Your task to perform on an android device: Open Amazon Image 0: 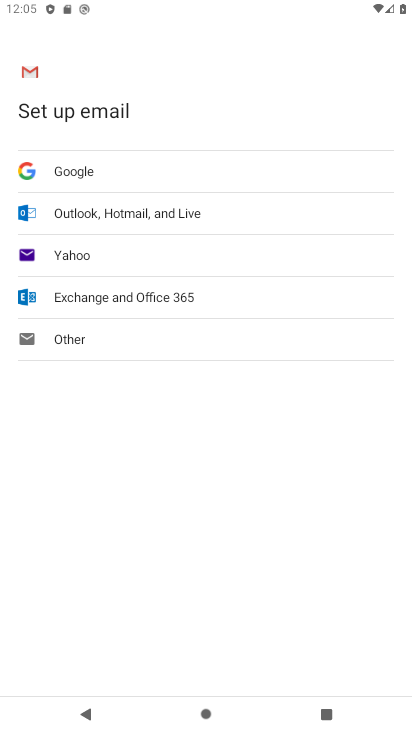
Step 0: press home button
Your task to perform on an android device: Open Amazon Image 1: 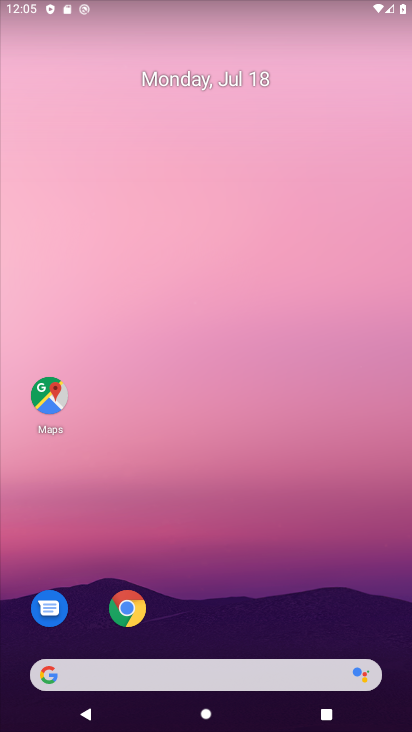
Step 1: click (131, 619)
Your task to perform on an android device: Open Amazon Image 2: 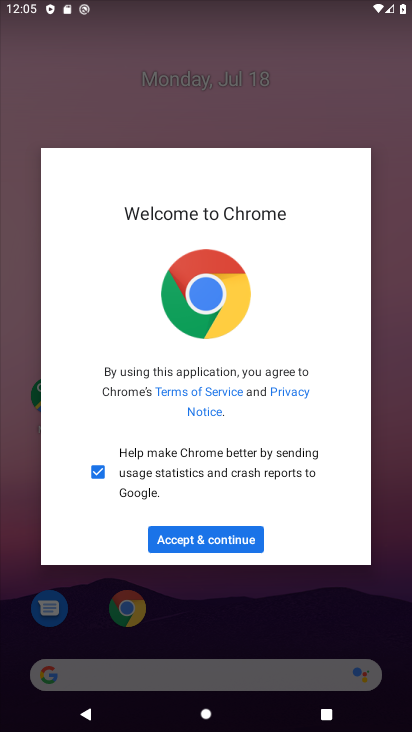
Step 2: click (187, 539)
Your task to perform on an android device: Open Amazon Image 3: 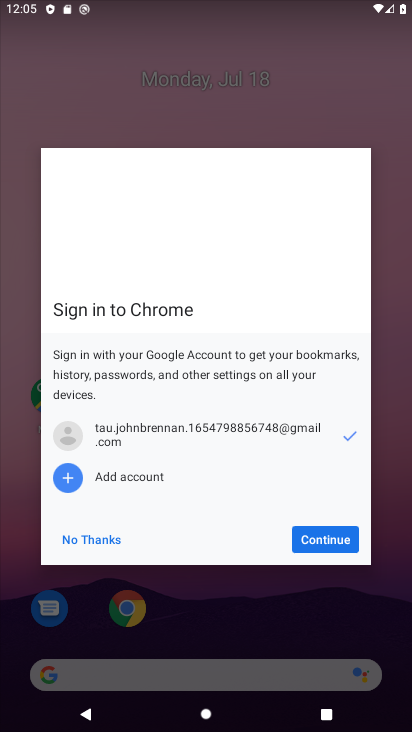
Step 3: click (311, 536)
Your task to perform on an android device: Open Amazon Image 4: 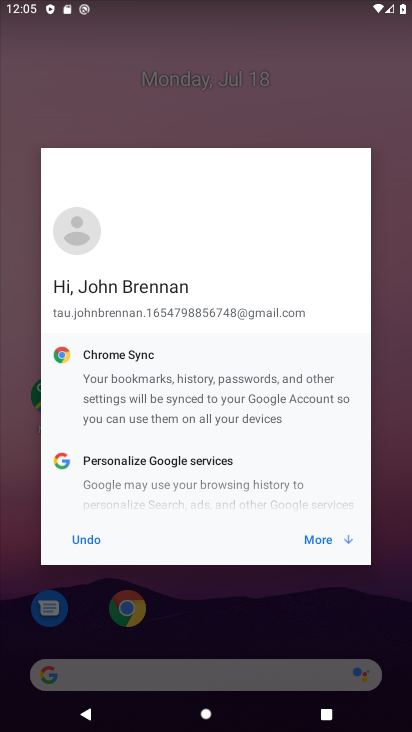
Step 4: click (311, 536)
Your task to perform on an android device: Open Amazon Image 5: 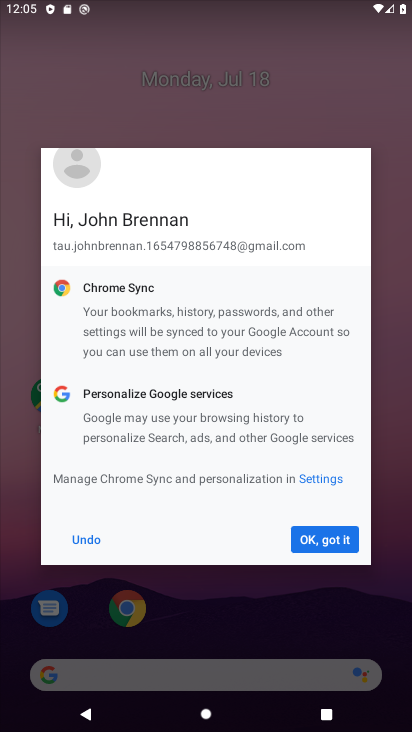
Step 5: click (311, 536)
Your task to perform on an android device: Open Amazon Image 6: 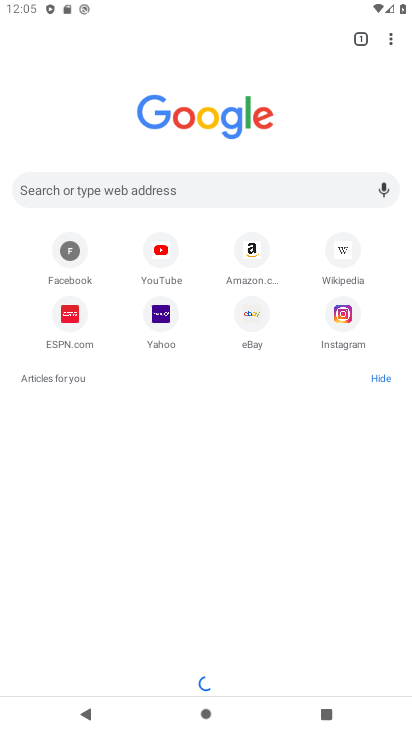
Step 6: click (251, 261)
Your task to perform on an android device: Open Amazon Image 7: 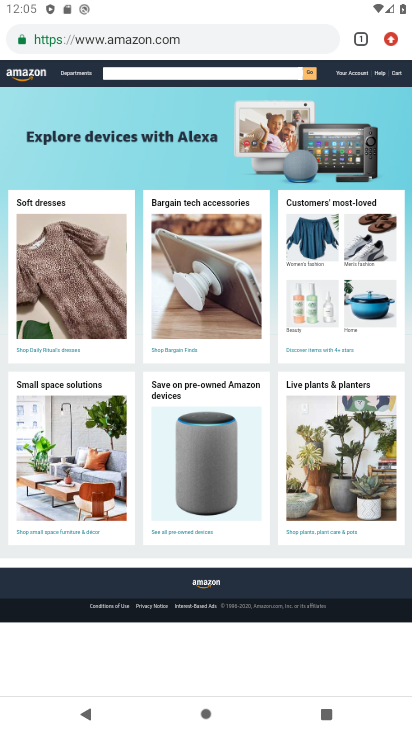
Step 7: task complete